Your task to perform on an android device: Search for "logitech g502" on walmart.com, select the first entry, and add it to the cart. Image 0: 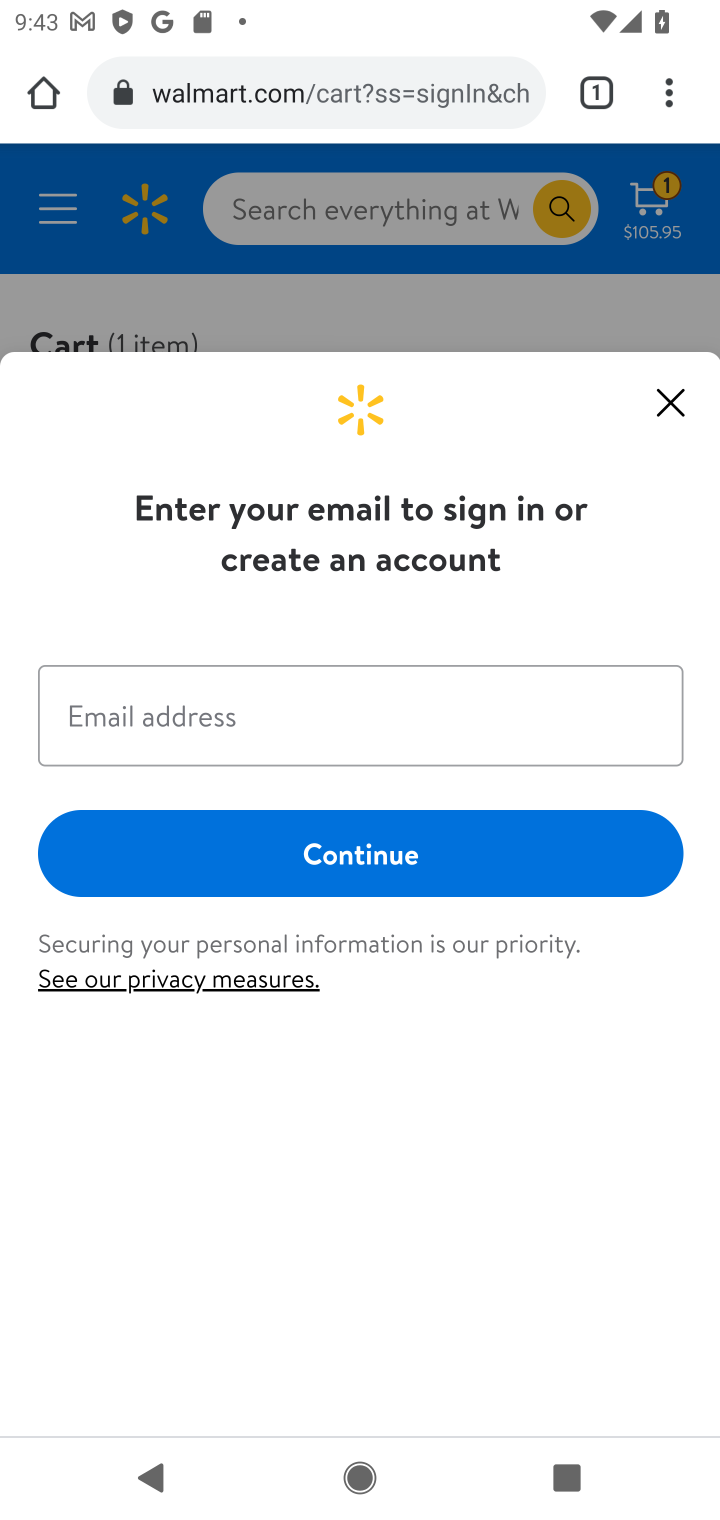
Step 0: click (665, 402)
Your task to perform on an android device: Search for "logitech g502" on walmart.com, select the first entry, and add it to the cart. Image 1: 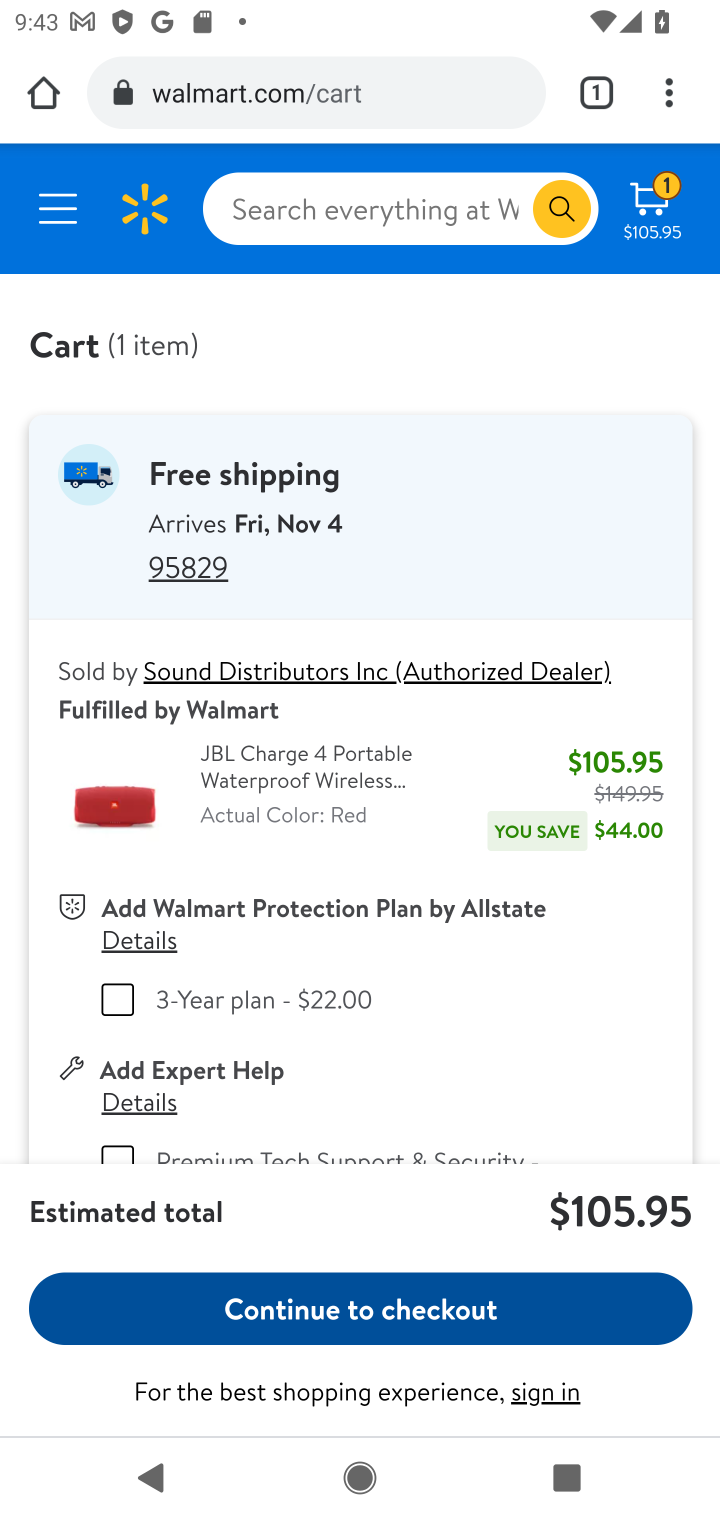
Step 1: click (305, 98)
Your task to perform on an android device: Search for "logitech g502" on walmart.com, select the first entry, and add it to the cart. Image 2: 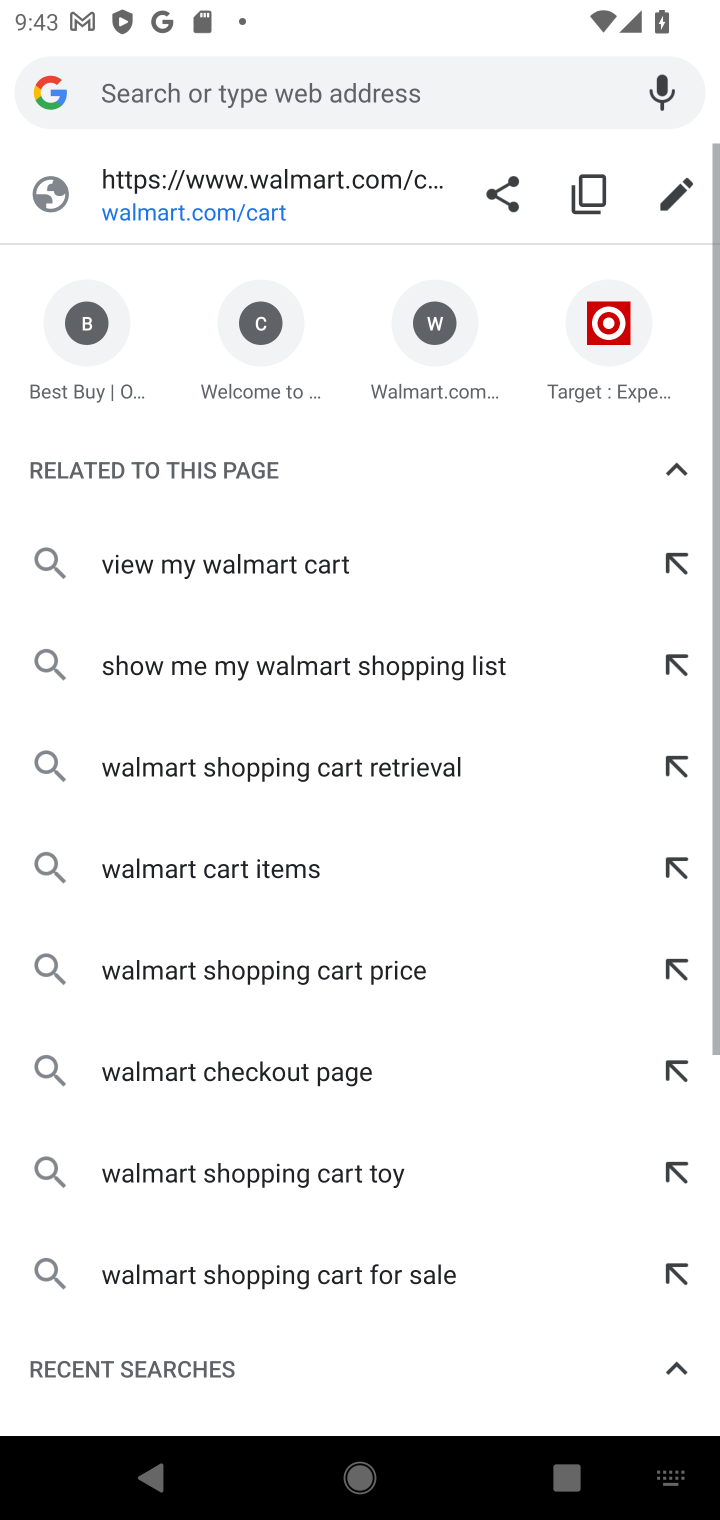
Step 2: type "walmart.com"
Your task to perform on an android device: Search for "logitech g502" on walmart.com, select the first entry, and add it to the cart. Image 3: 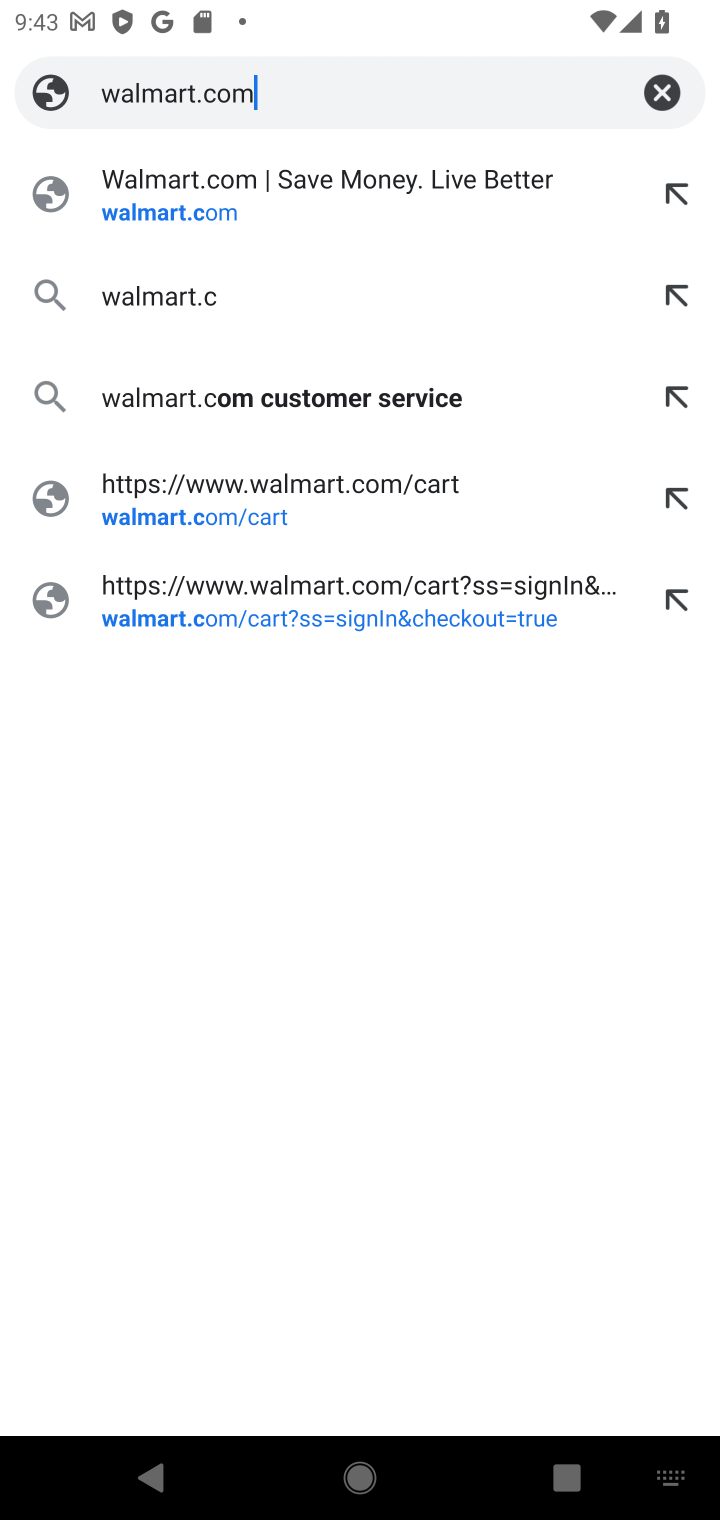
Step 3: type ""
Your task to perform on an android device: Search for "logitech g502" on walmart.com, select the first entry, and add it to the cart. Image 4: 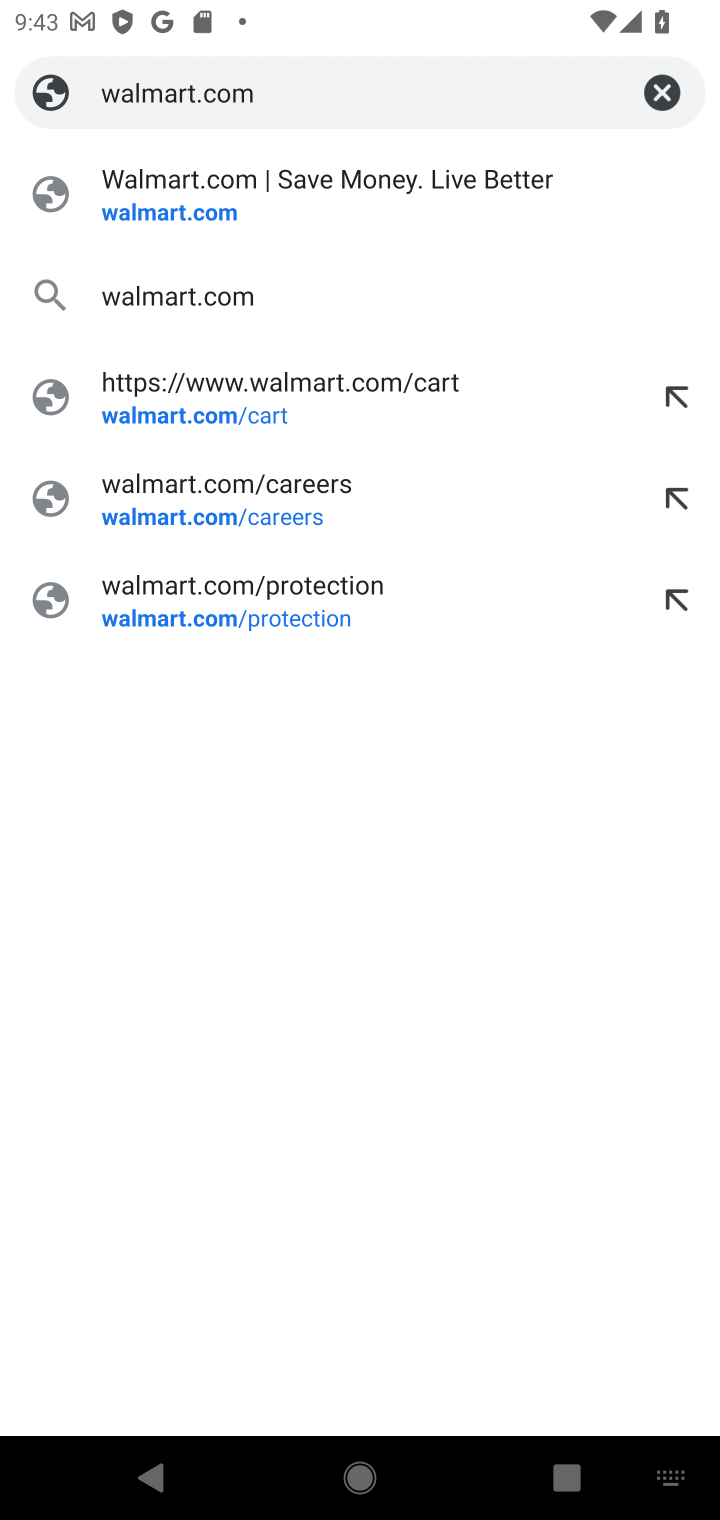
Step 4: click (355, 189)
Your task to perform on an android device: Search for "logitech g502" on walmart.com, select the first entry, and add it to the cart. Image 5: 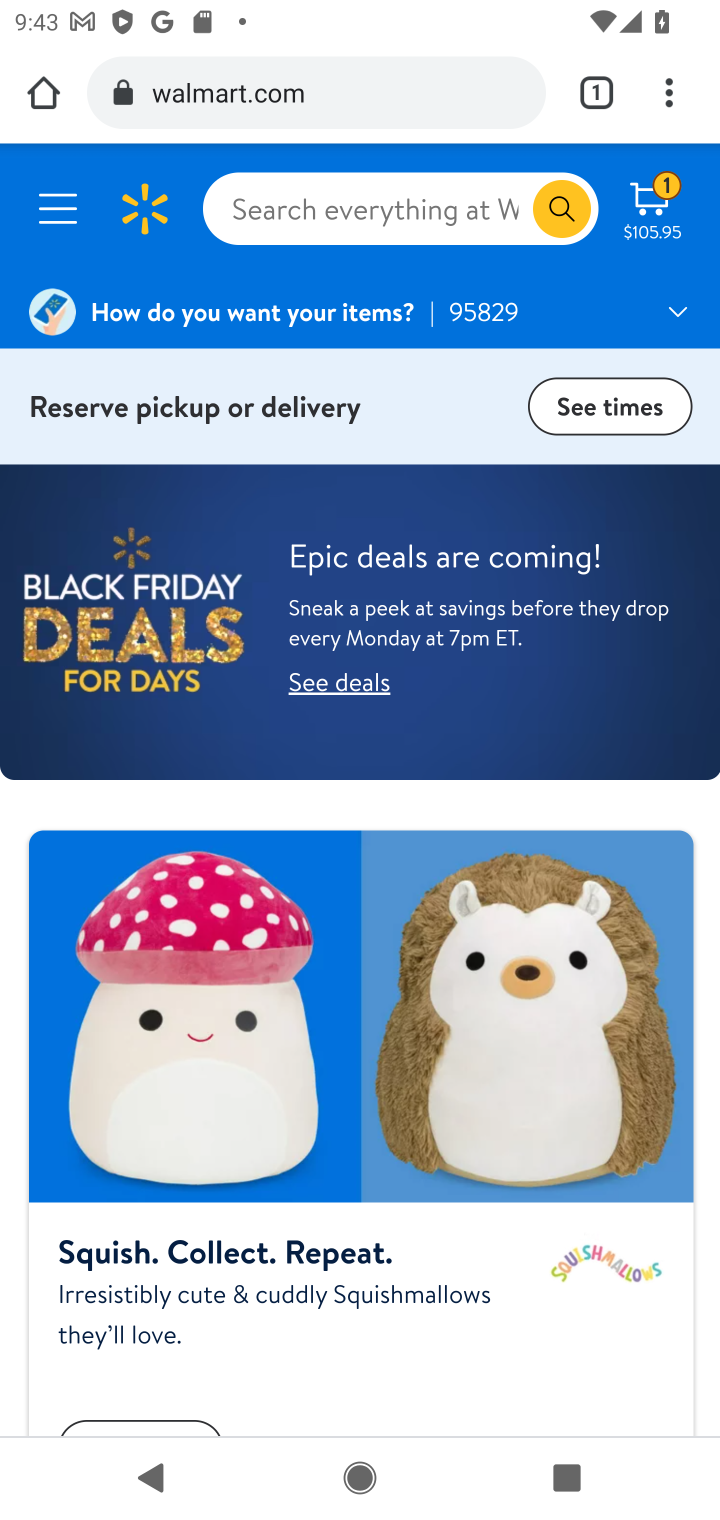
Step 5: click (416, 207)
Your task to perform on an android device: Search for "logitech g502" on walmart.com, select the first entry, and add it to the cart. Image 6: 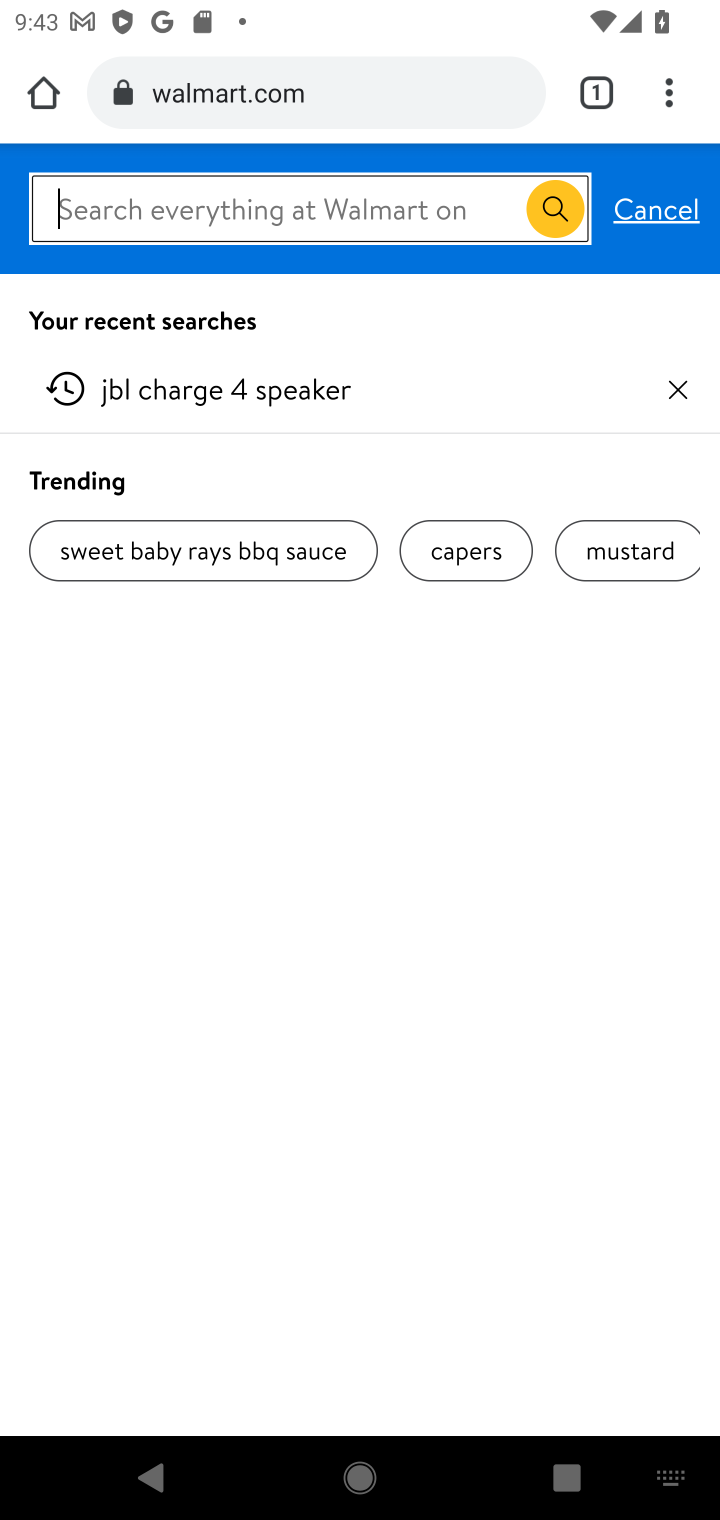
Step 6: type "logitech g502"
Your task to perform on an android device: Search for "logitech g502" on walmart.com, select the first entry, and add it to the cart. Image 7: 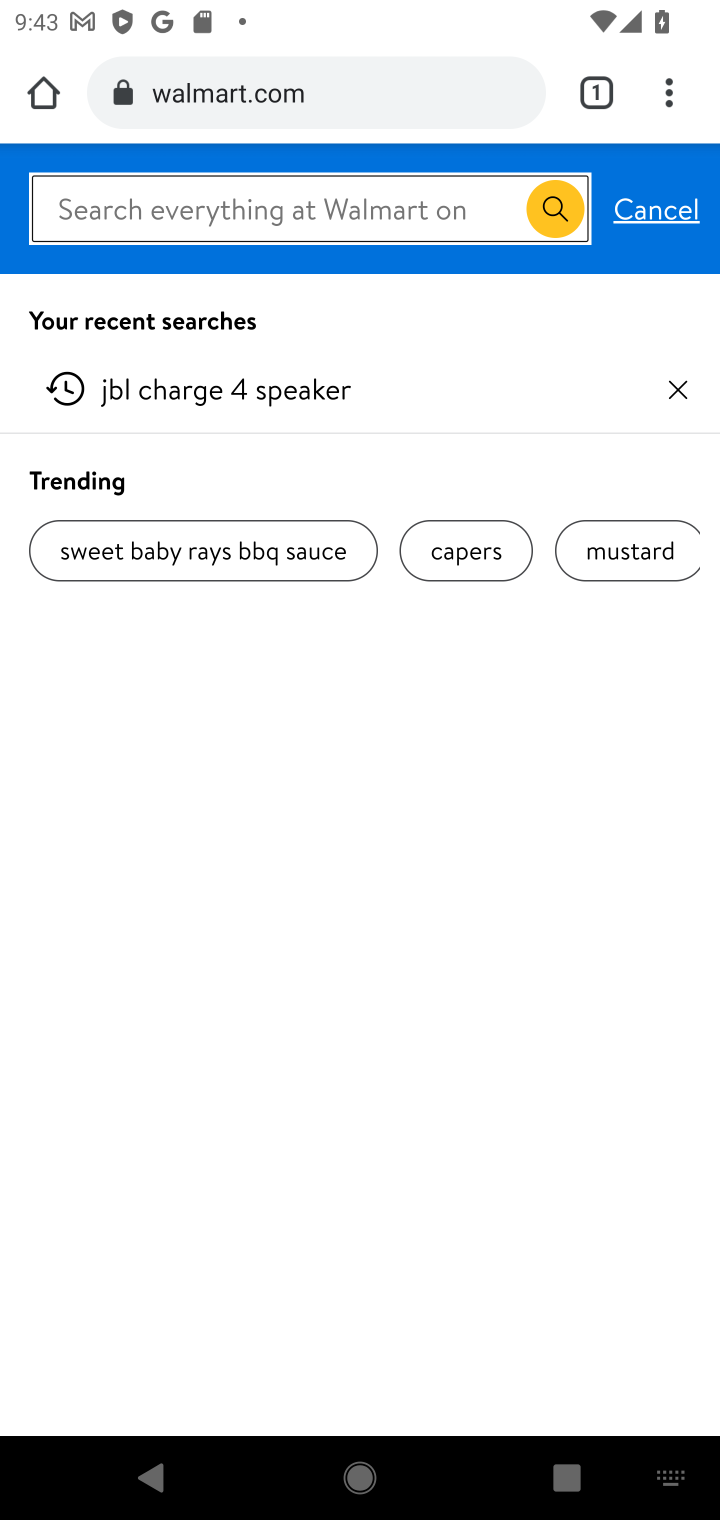
Step 7: type ""
Your task to perform on an android device: Search for "logitech g502" on walmart.com, select the first entry, and add it to the cart. Image 8: 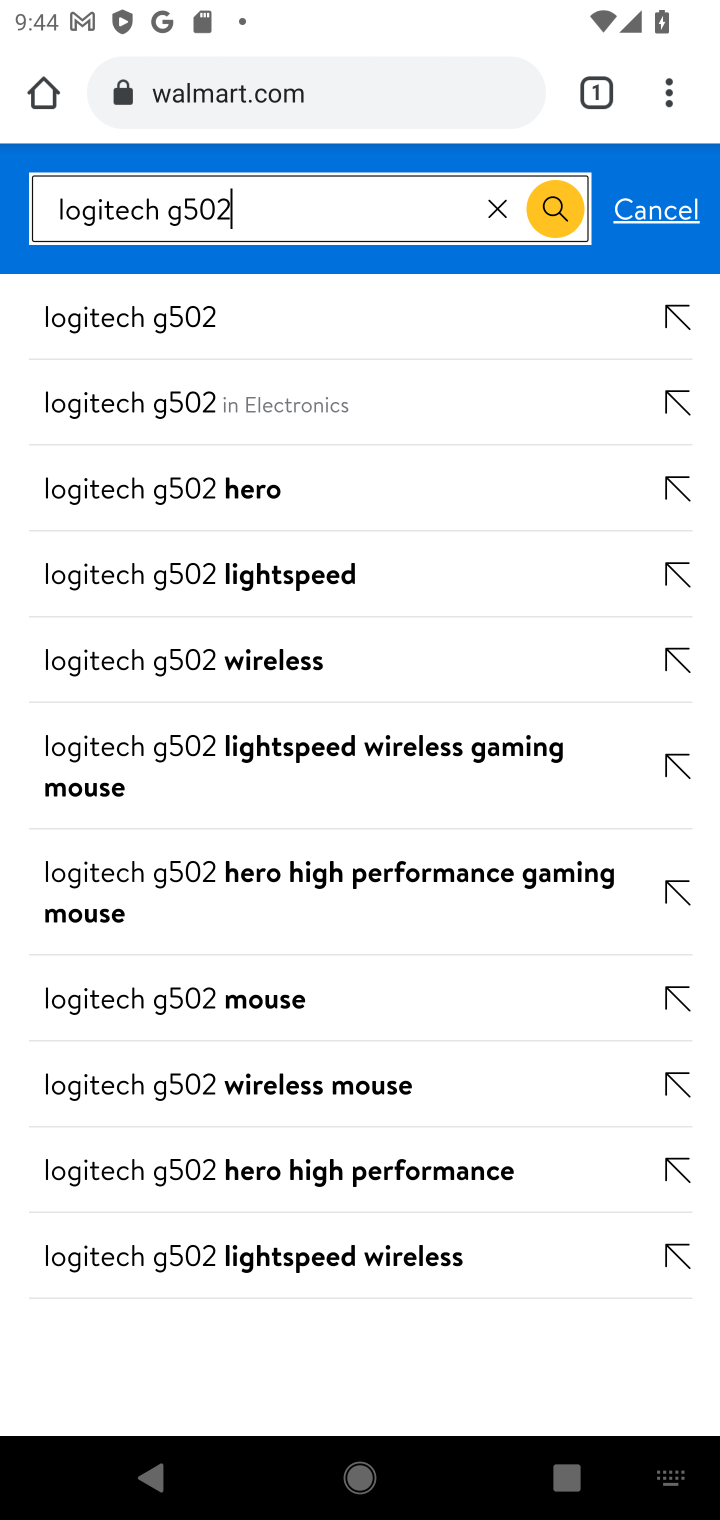
Step 8: click (560, 211)
Your task to perform on an android device: Search for "logitech g502" on walmart.com, select the first entry, and add it to the cart. Image 9: 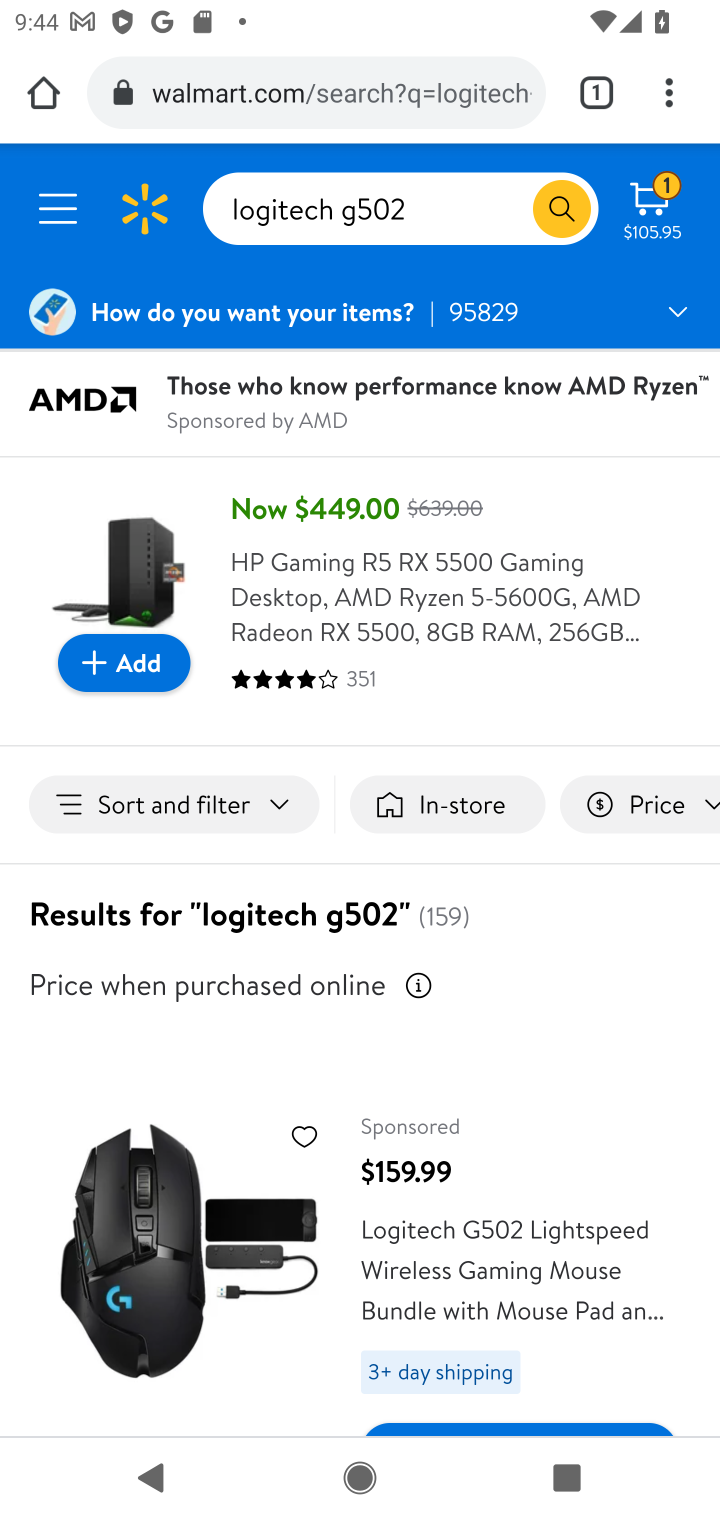
Step 9: click (368, 1240)
Your task to perform on an android device: Search for "logitech g502" on walmart.com, select the first entry, and add it to the cart. Image 10: 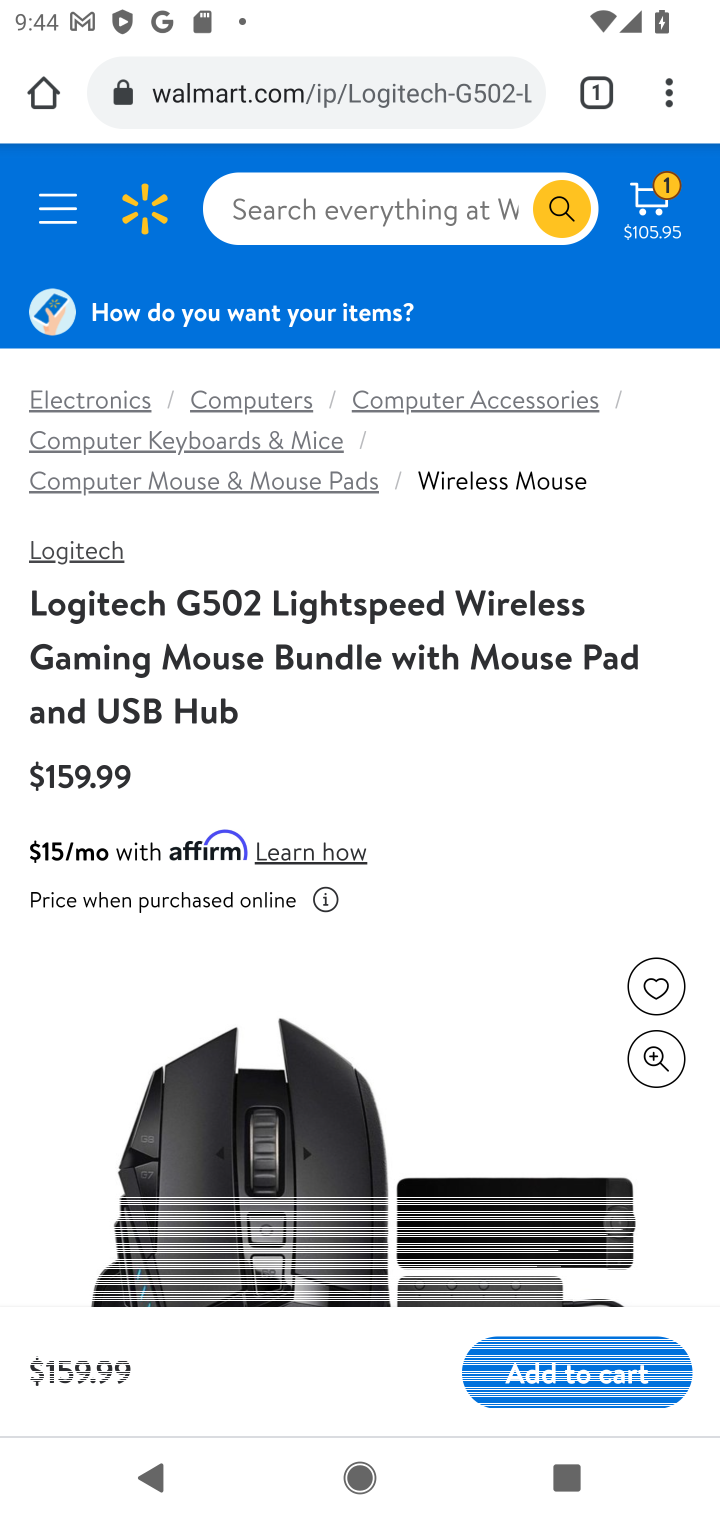
Step 10: drag from (335, 1150) to (431, 801)
Your task to perform on an android device: Search for "logitech g502" on walmart.com, select the first entry, and add it to the cart. Image 11: 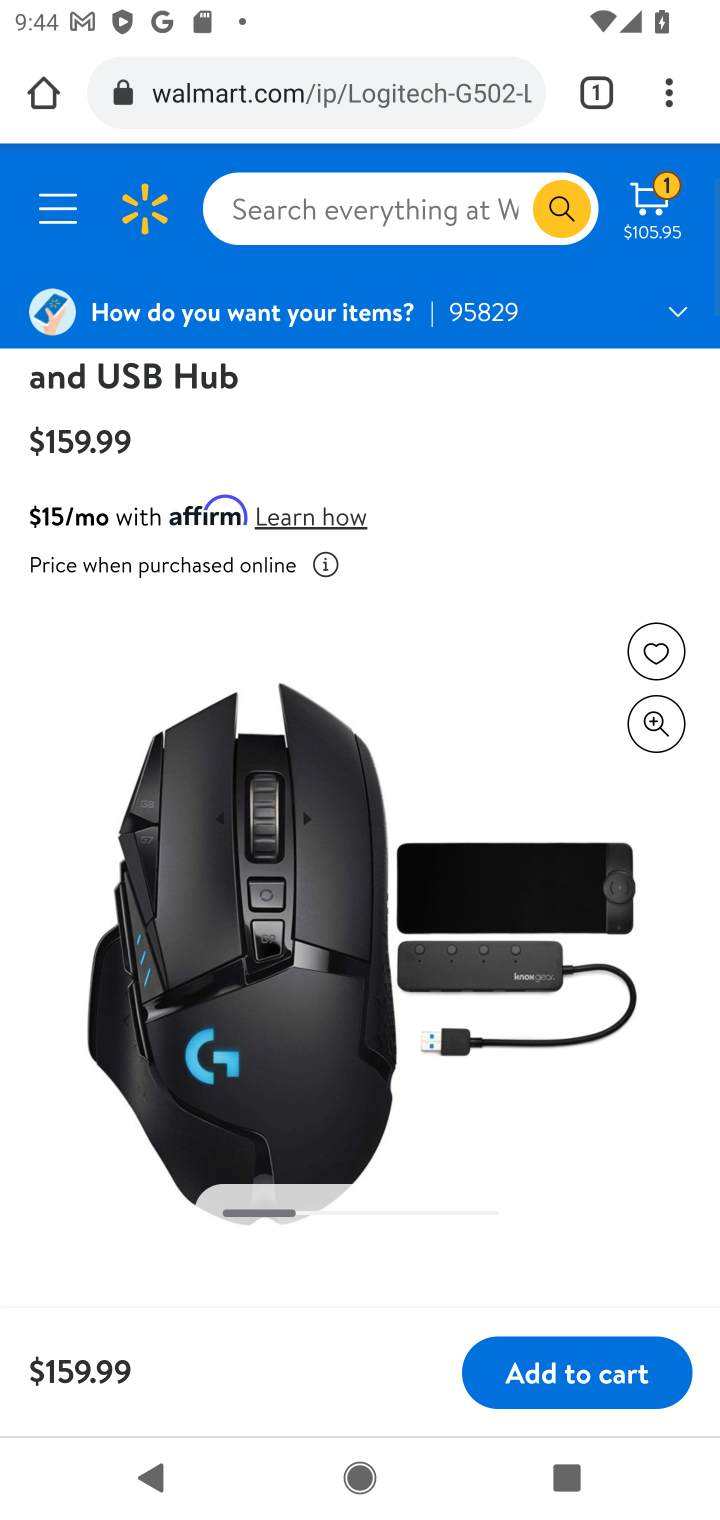
Step 11: click (550, 1350)
Your task to perform on an android device: Search for "logitech g502" on walmart.com, select the first entry, and add it to the cart. Image 12: 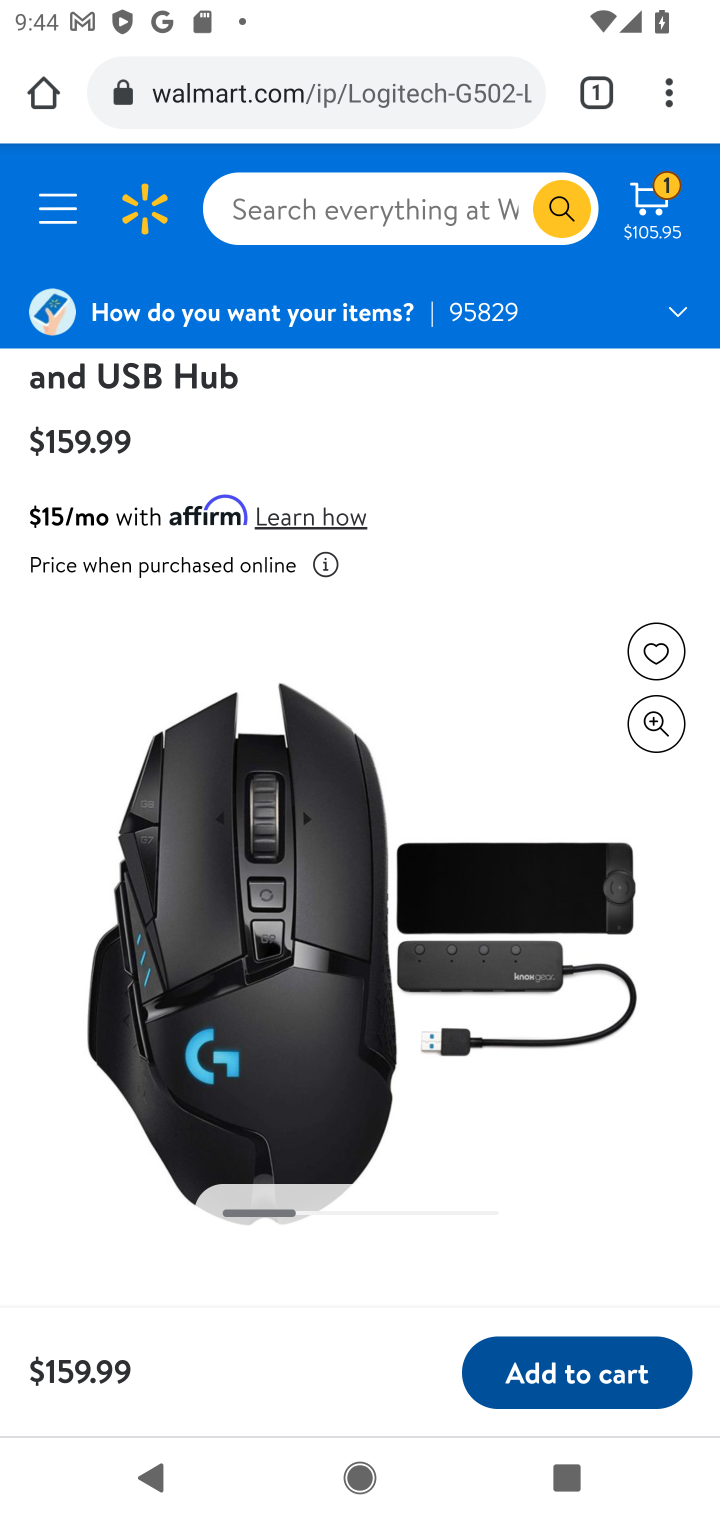
Step 12: click (557, 1379)
Your task to perform on an android device: Search for "logitech g502" on walmart.com, select the first entry, and add it to the cart. Image 13: 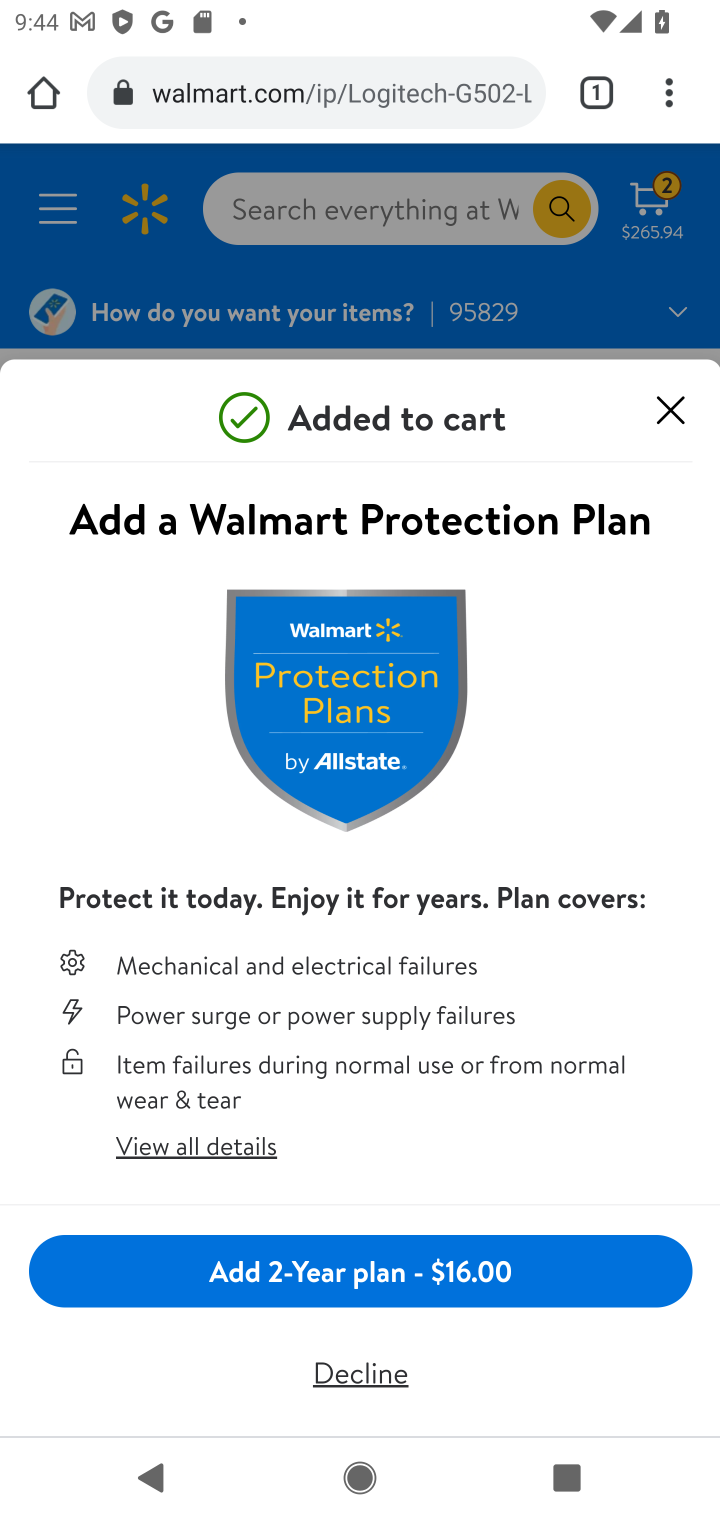
Step 13: click (411, 1371)
Your task to perform on an android device: Search for "logitech g502" on walmart.com, select the first entry, and add it to the cart. Image 14: 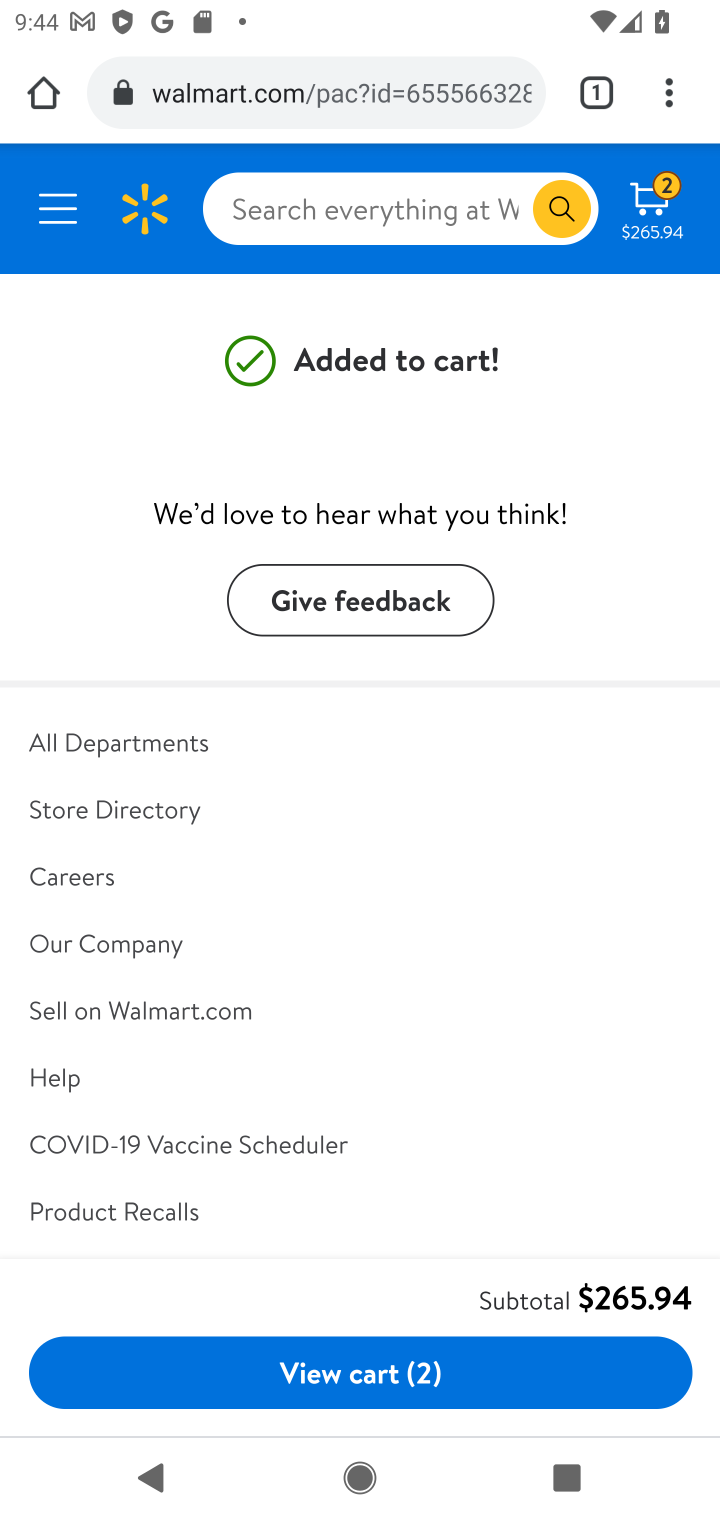
Step 14: click (640, 184)
Your task to perform on an android device: Search for "logitech g502" on walmart.com, select the first entry, and add it to the cart. Image 15: 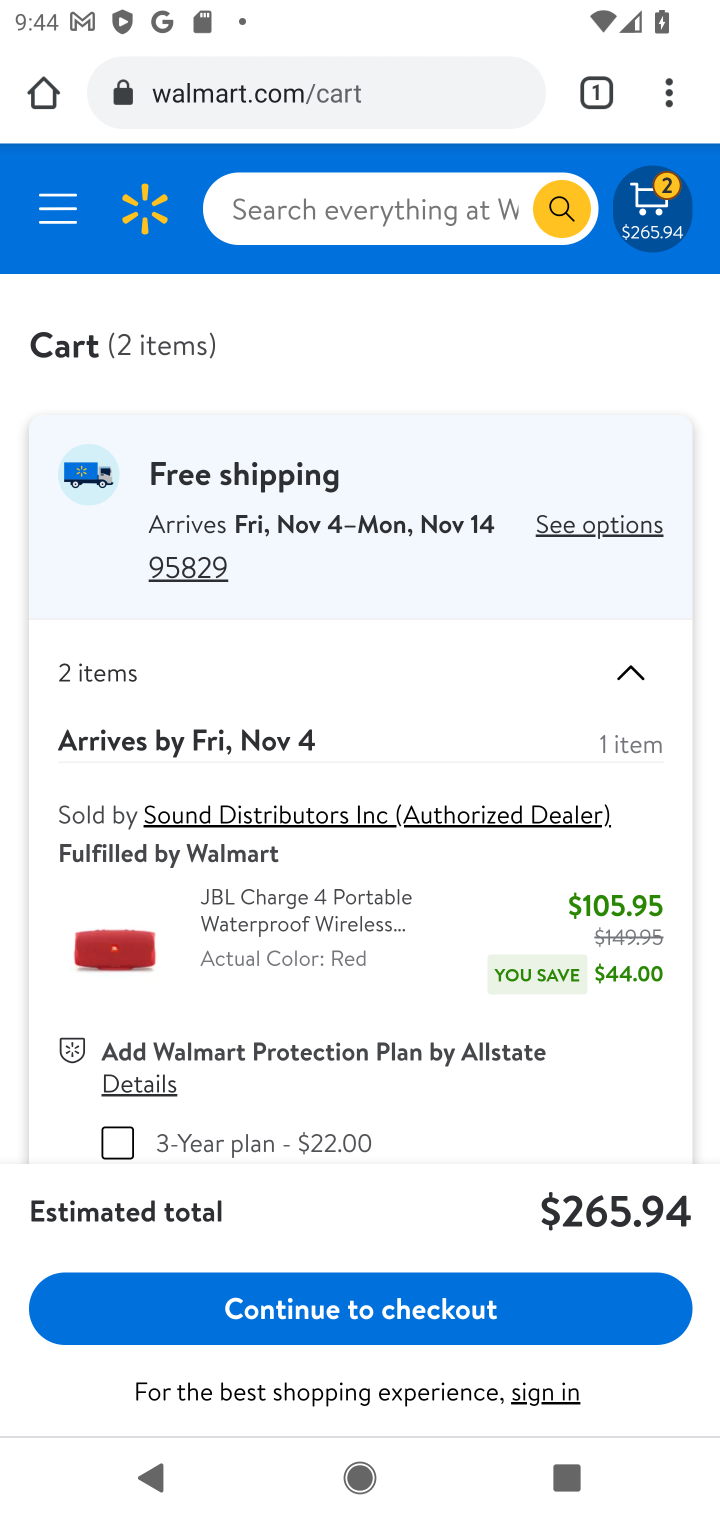
Step 15: click (310, 1331)
Your task to perform on an android device: Search for "logitech g502" on walmart.com, select the first entry, and add it to the cart. Image 16: 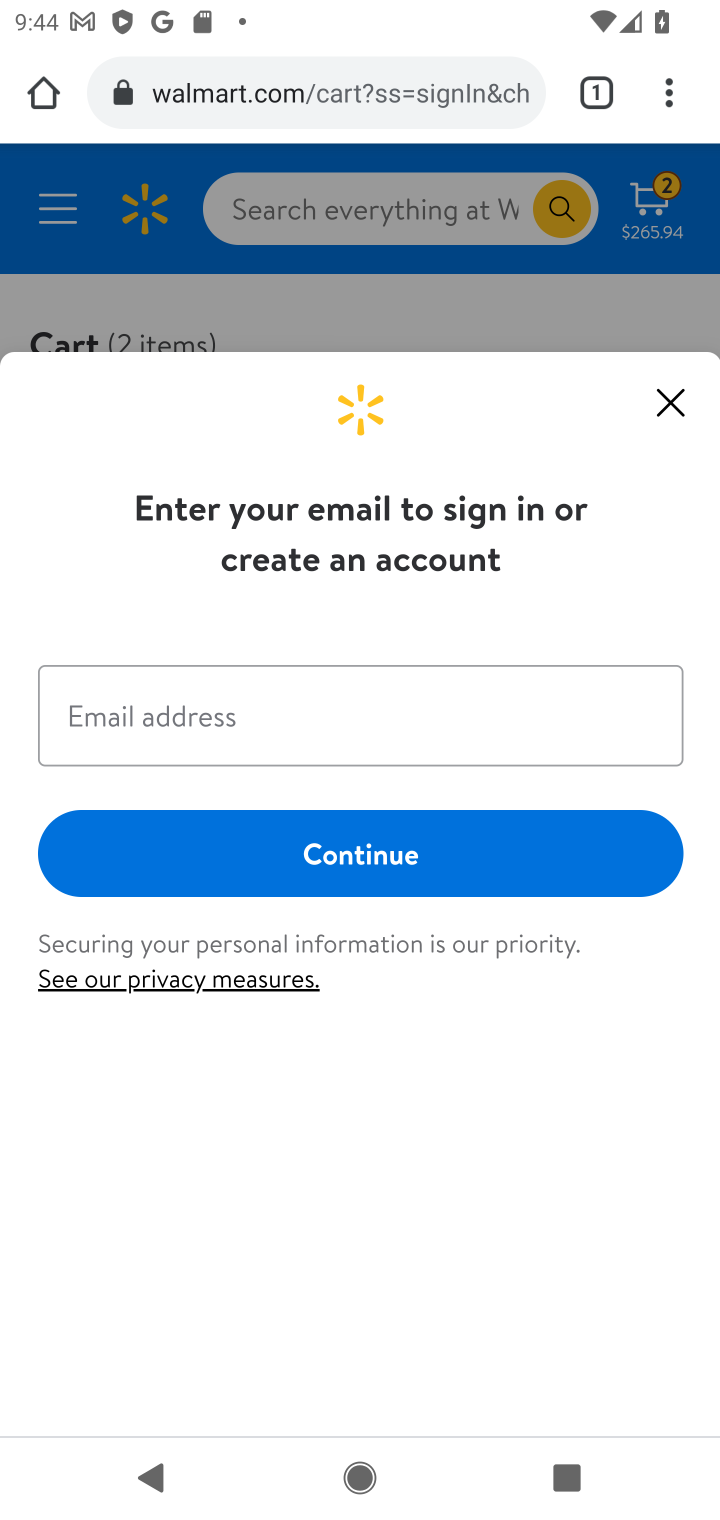
Step 16: task complete